Your task to perform on an android device: turn on translation in the chrome app Image 0: 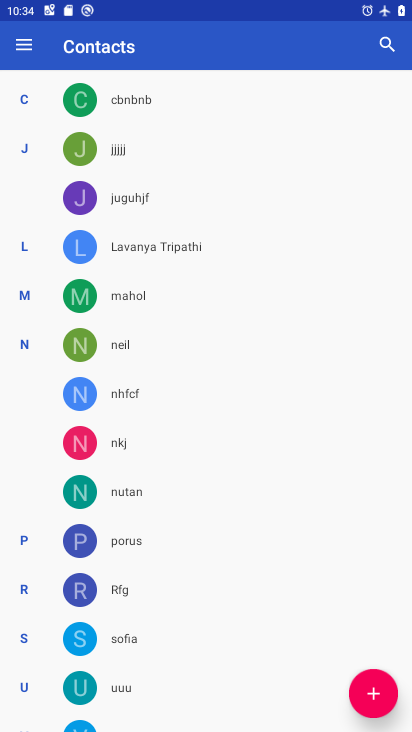
Step 0: press home button
Your task to perform on an android device: turn on translation in the chrome app Image 1: 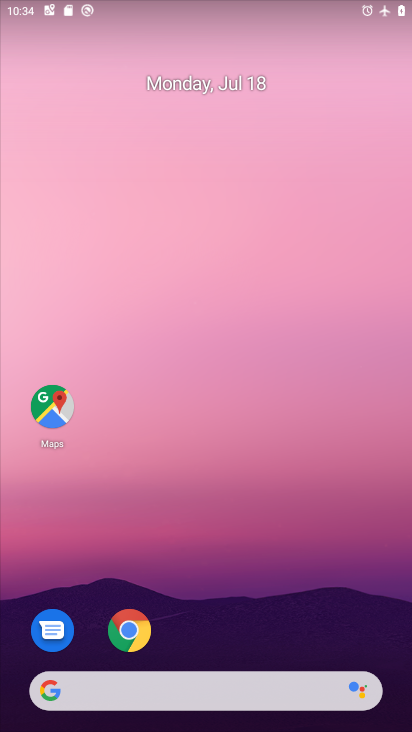
Step 1: click (131, 640)
Your task to perform on an android device: turn on translation in the chrome app Image 2: 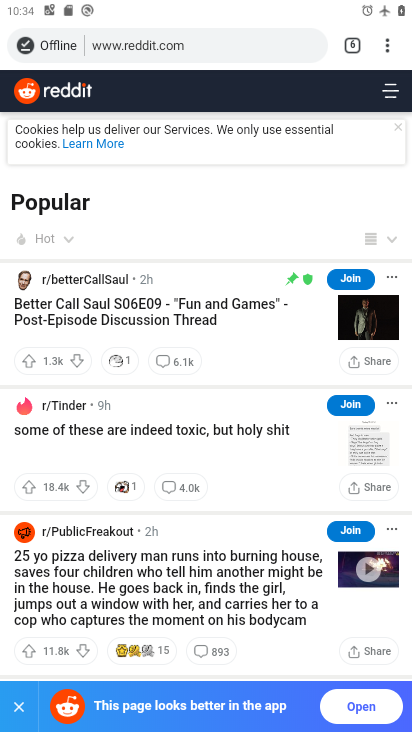
Step 2: click (383, 42)
Your task to perform on an android device: turn on translation in the chrome app Image 3: 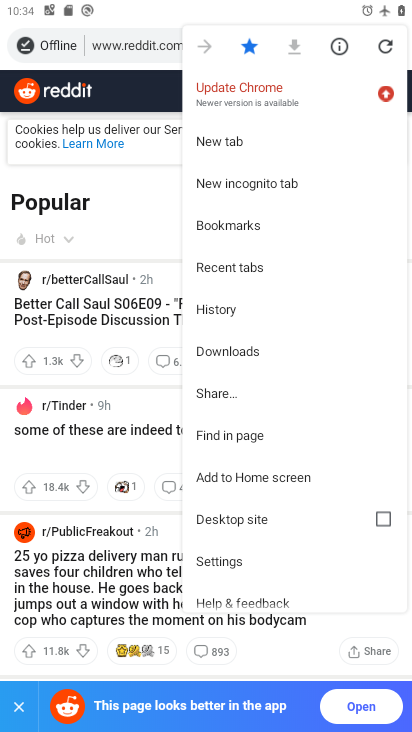
Step 3: click (228, 555)
Your task to perform on an android device: turn on translation in the chrome app Image 4: 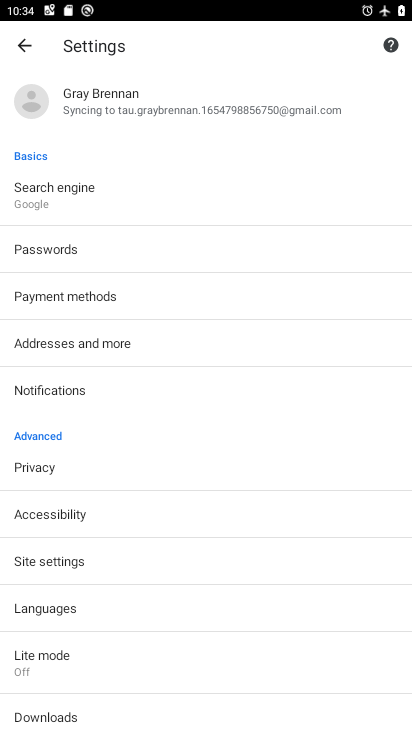
Step 4: click (80, 608)
Your task to perform on an android device: turn on translation in the chrome app Image 5: 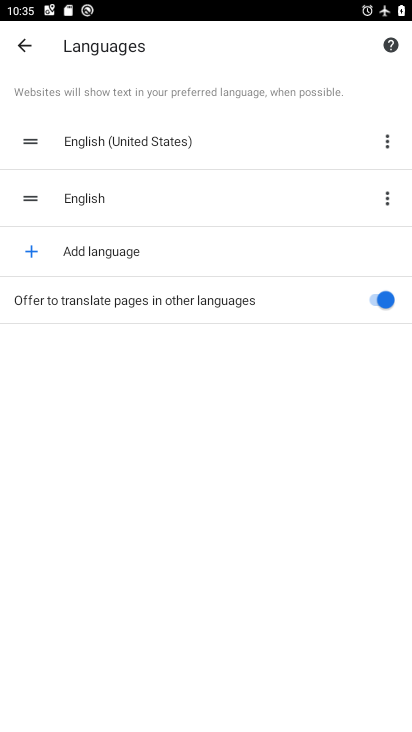
Step 5: task complete